Your task to perform on an android device: Empty the shopping cart on newegg. Search for "macbook pro" on newegg, select the first entry, and add it to the cart. Image 0: 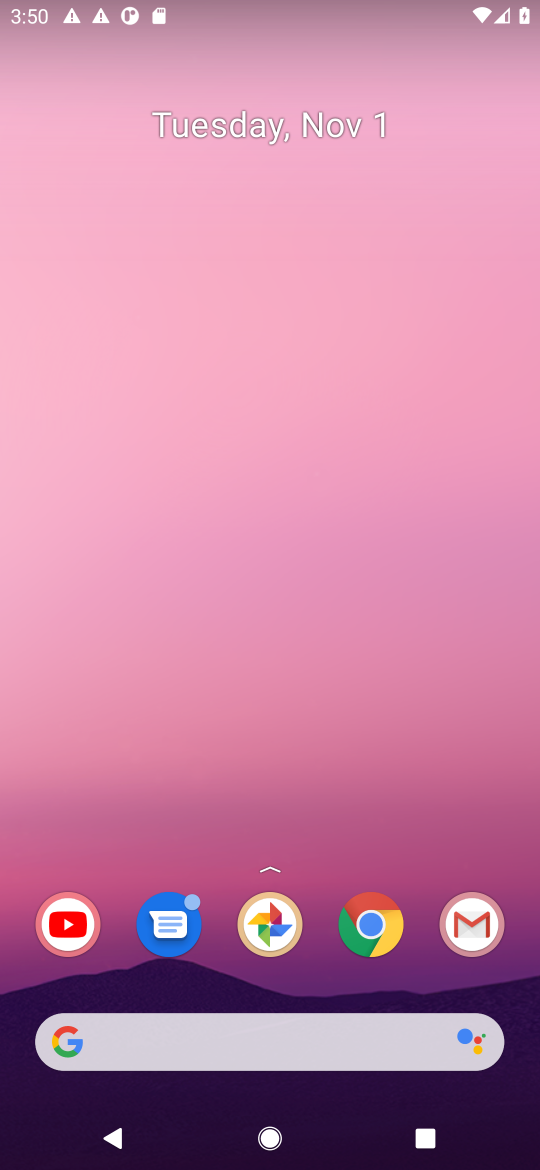
Step 0: drag from (136, 877) to (111, 70)
Your task to perform on an android device: Empty the shopping cart on newegg. Search for "macbook pro" on newegg, select the first entry, and add it to the cart. Image 1: 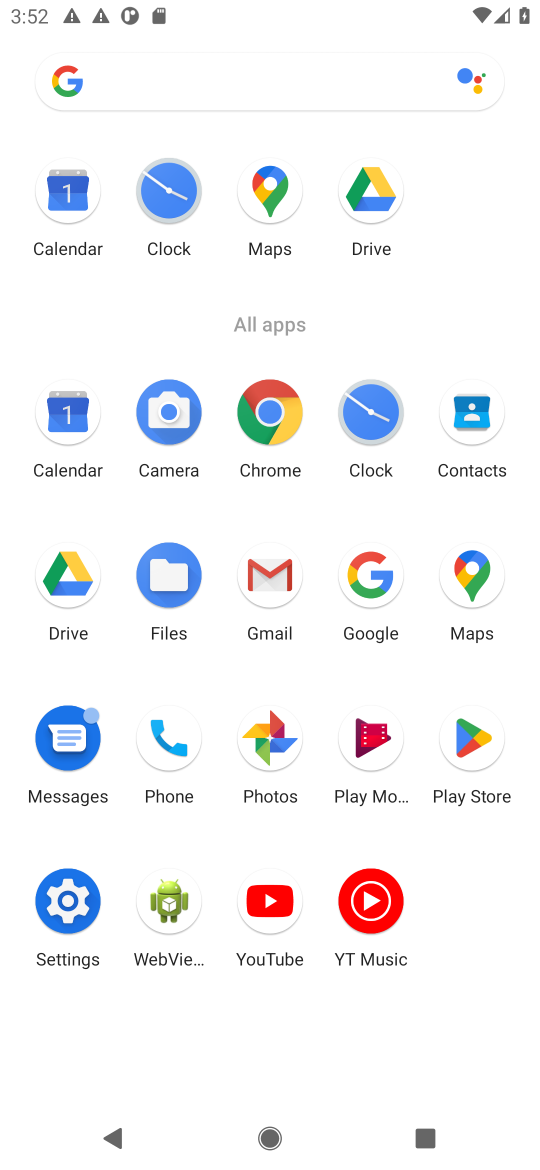
Step 1: click (267, 445)
Your task to perform on an android device: Empty the shopping cart on newegg. Search for "macbook pro" on newegg, select the first entry, and add it to the cart. Image 2: 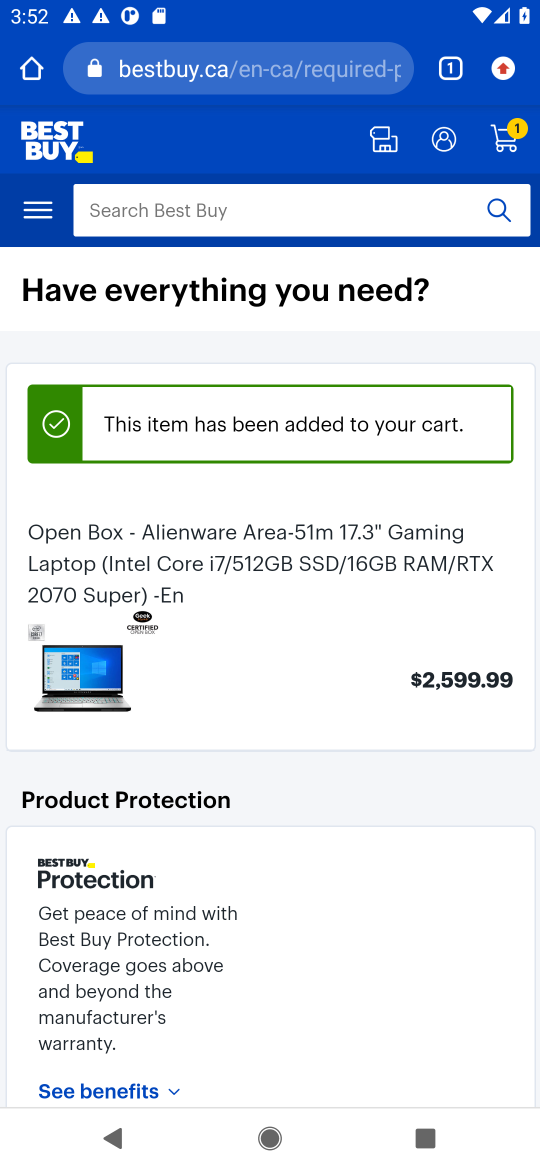
Step 2: click (149, 42)
Your task to perform on an android device: Empty the shopping cart on newegg. Search for "macbook pro" on newegg, select the first entry, and add it to the cart. Image 3: 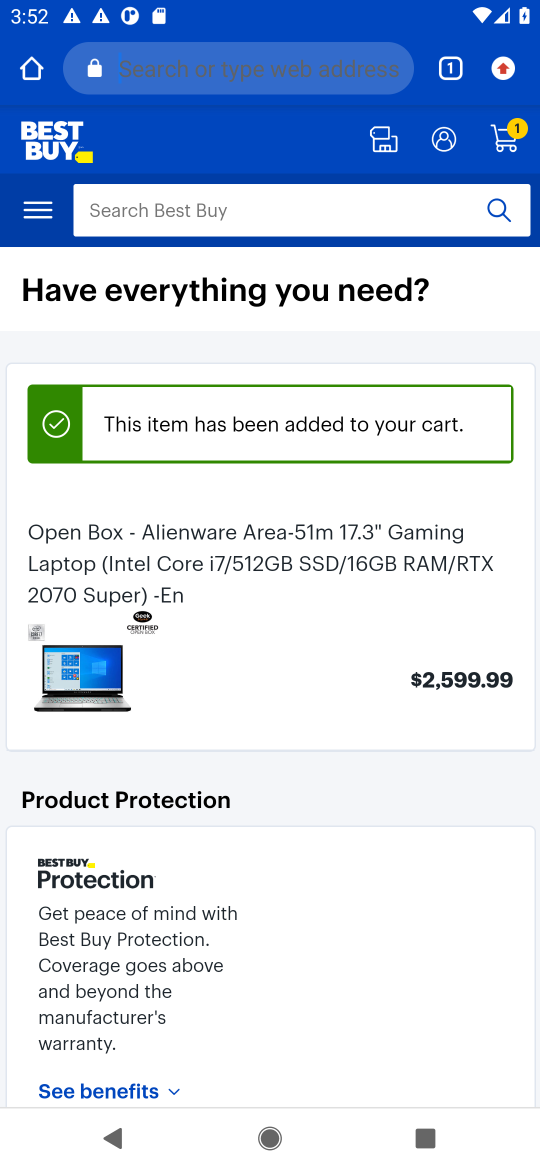
Step 3: click (169, 68)
Your task to perform on an android device: Empty the shopping cart on newegg. Search for "macbook pro" on newegg, select the first entry, and add it to the cart. Image 4: 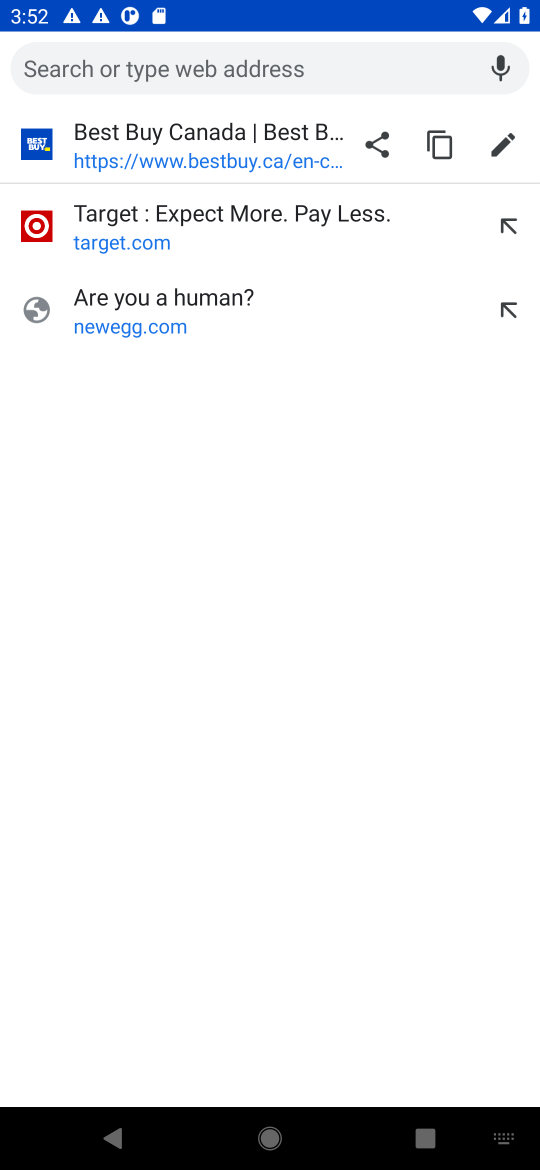
Step 4: type "newegg"
Your task to perform on an android device: Empty the shopping cart on newegg. Search for "macbook pro" on newegg, select the first entry, and add it to the cart. Image 5: 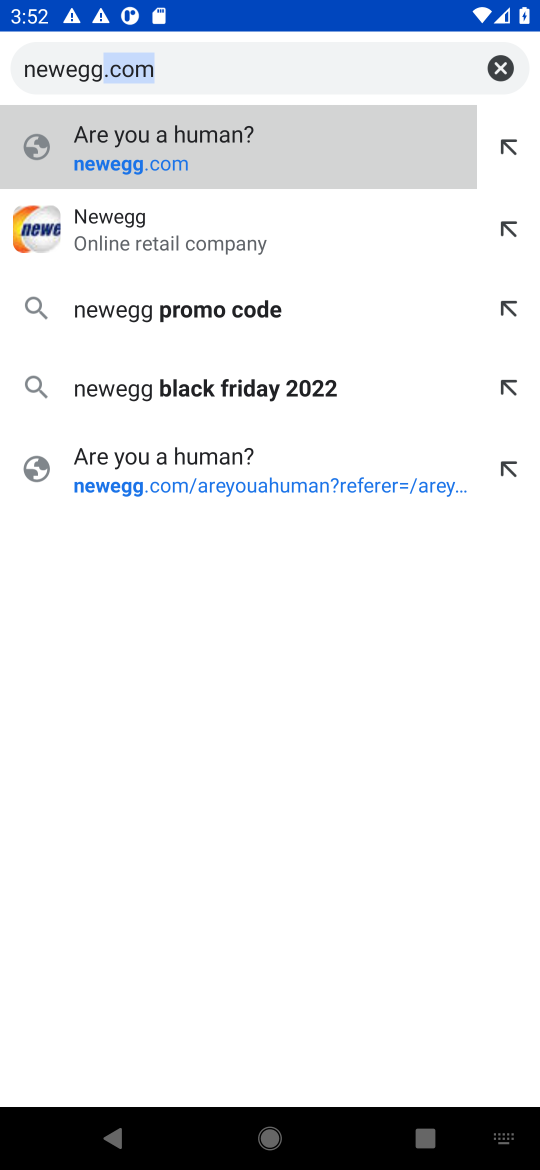
Step 5: press enter
Your task to perform on an android device: Empty the shopping cart on newegg. Search for "macbook pro" on newegg, select the first entry, and add it to the cart. Image 6: 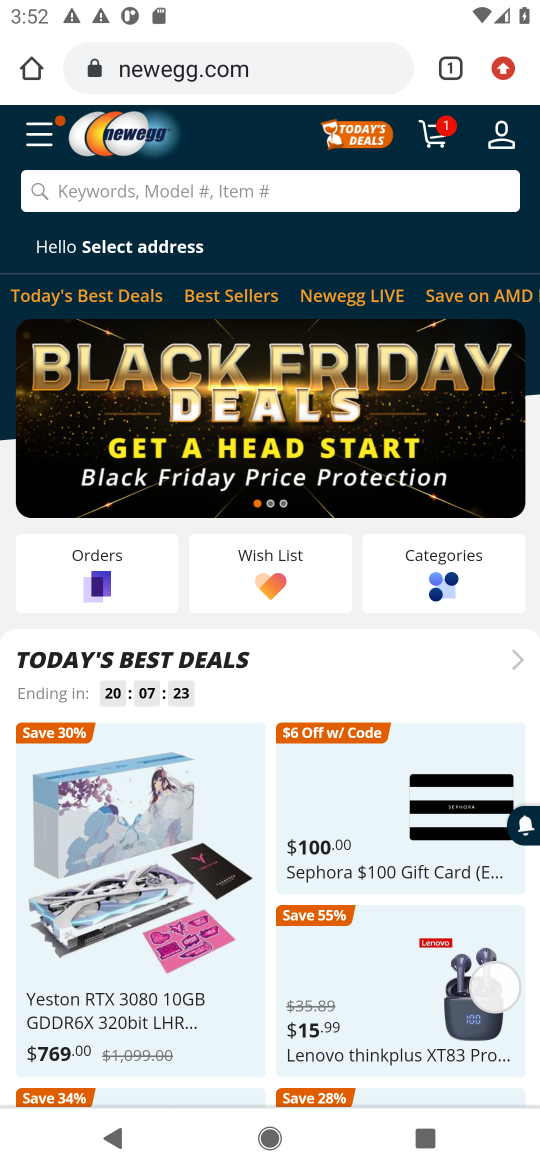
Step 6: click (76, 207)
Your task to perform on an android device: Empty the shopping cart on newegg. Search for "macbook pro" on newegg, select the first entry, and add it to the cart. Image 7: 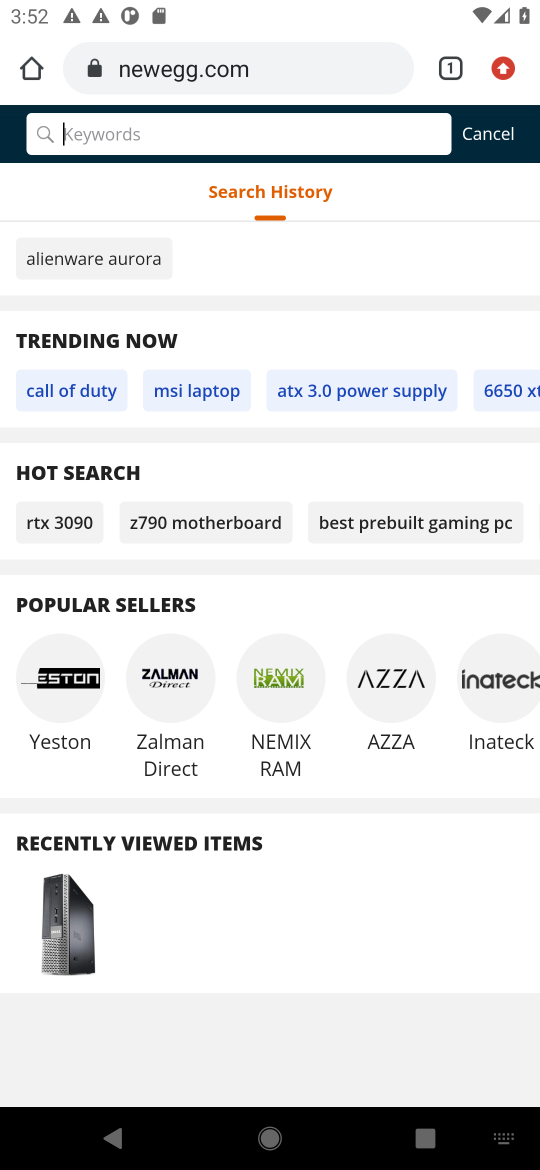
Step 7: press back button
Your task to perform on an android device: Empty the shopping cart on newegg. Search for "macbook pro" on newegg, select the first entry, and add it to the cart. Image 8: 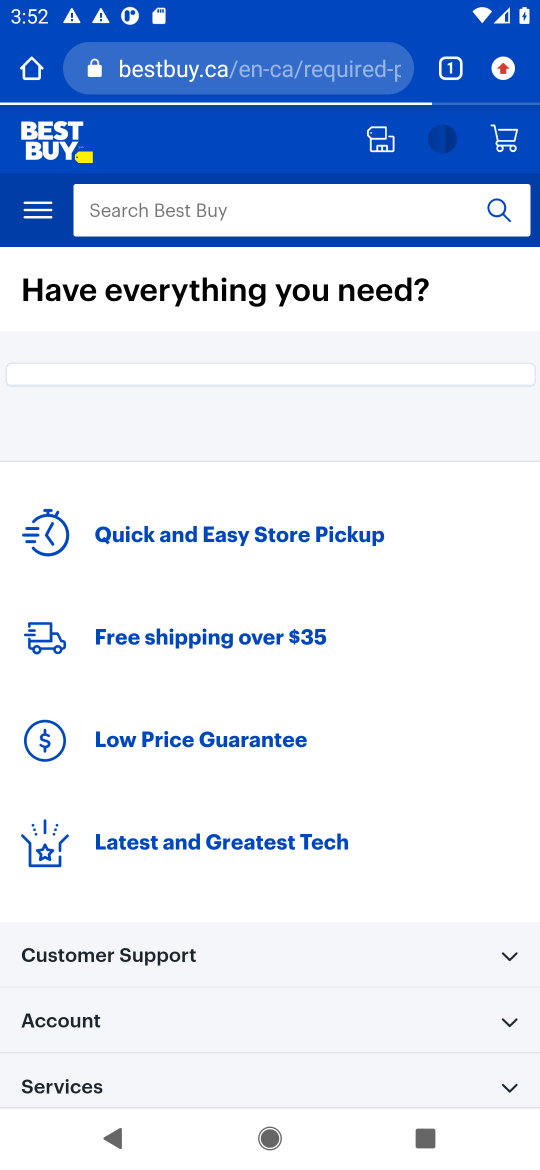
Step 8: click (235, 63)
Your task to perform on an android device: Empty the shopping cart on newegg. Search for "macbook pro" on newegg, select the first entry, and add it to the cart. Image 9: 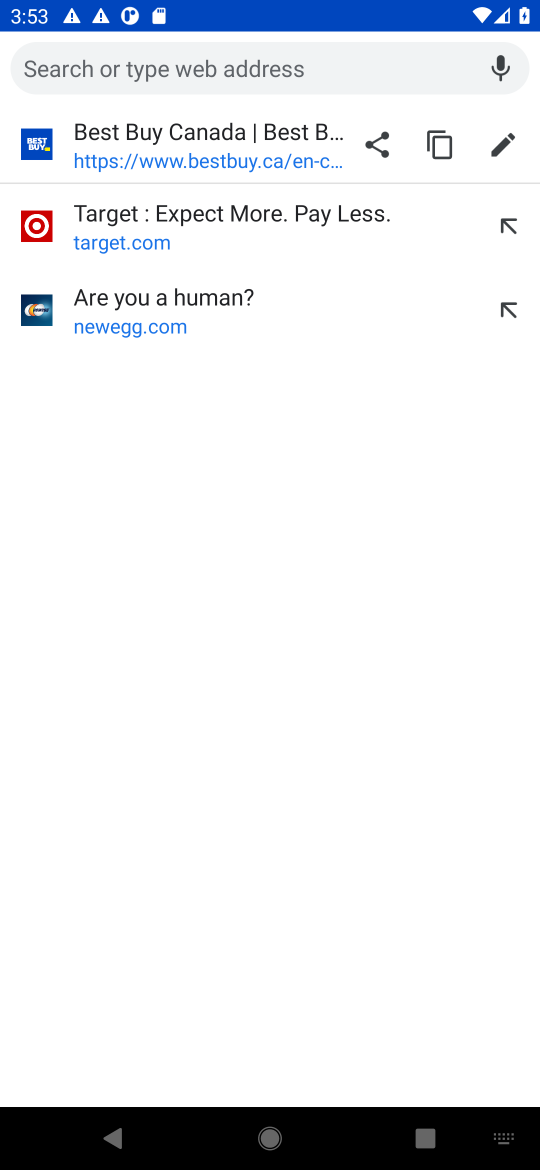
Step 9: type "newegg"
Your task to perform on an android device: Empty the shopping cart on newegg. Search for "macbook pro" on newegg, select the first entry, and add it to the cart. Image 10: 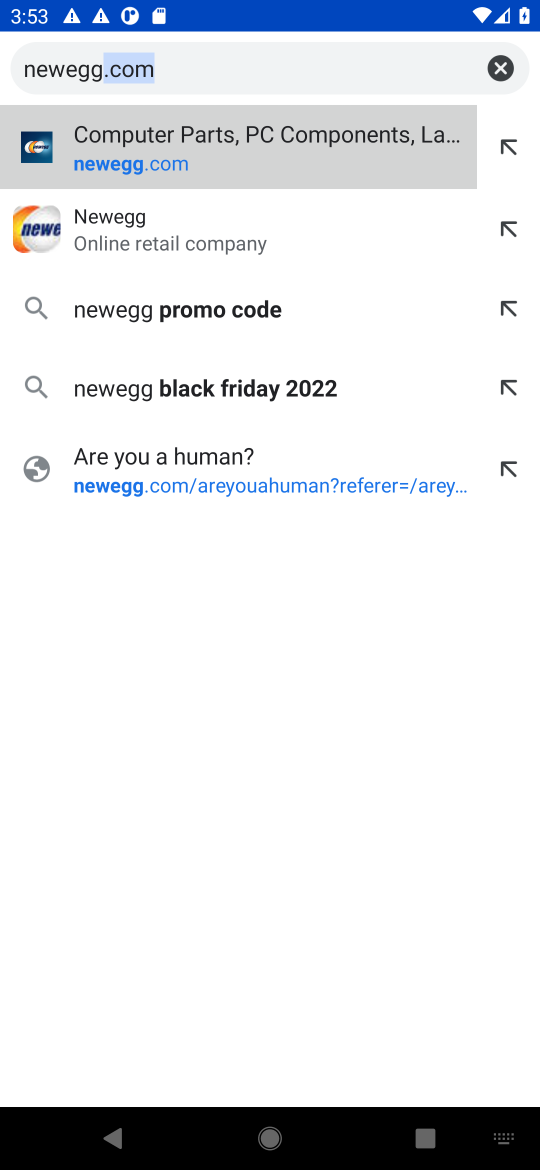
Step 10: press enter
Your task to perform on an android device: Empty the shopping cart on newegg. Search for "macbook pro" on newegg, select the first entry, and add it to the cart. Image 11: 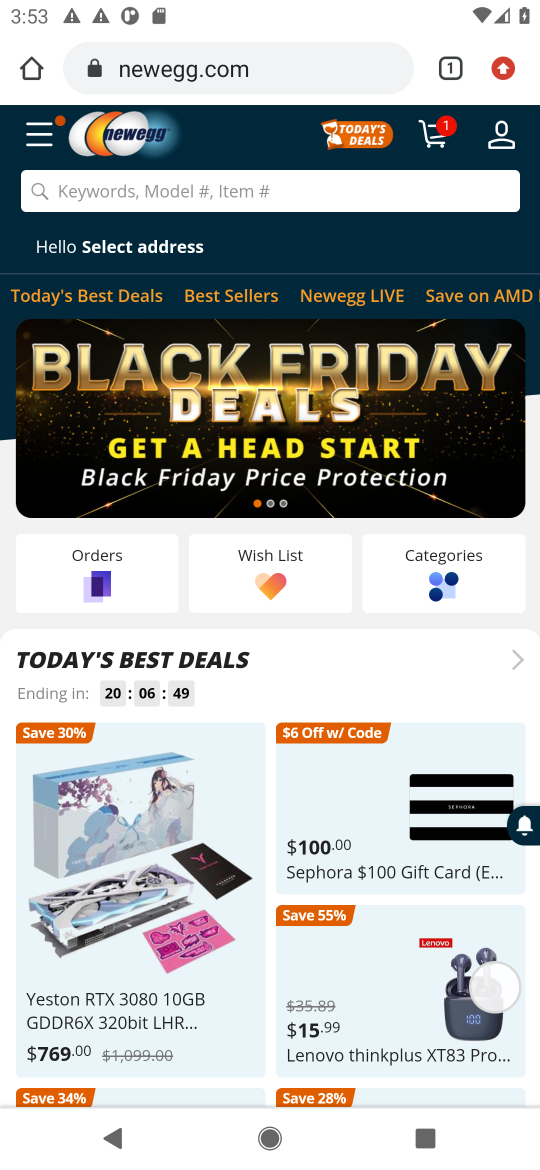
Step 11: click (433, 128)
Your task to perform on an android device: Empty the shopping cart on newegg. Search for "macbook pro" on newegg, select the first entry, and add it to the cart. Image 12: 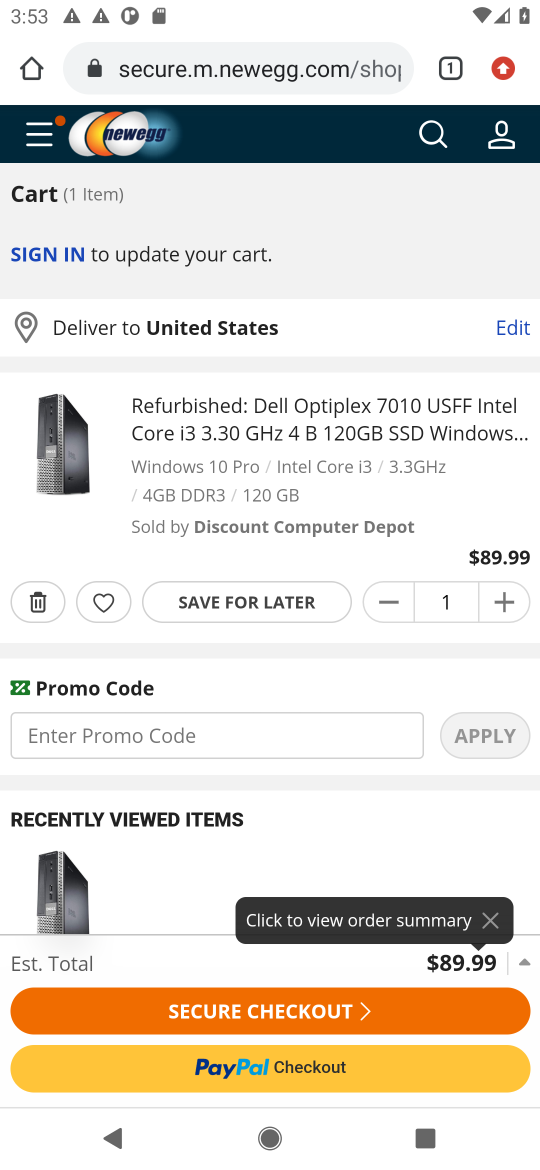
Step 12: click (388, 594)
Your task to perform on an android device: Empty the shopping cart on newegg. Search for "macbook pro" on newegg, select the first entry, and add it to the cart. Image 13: 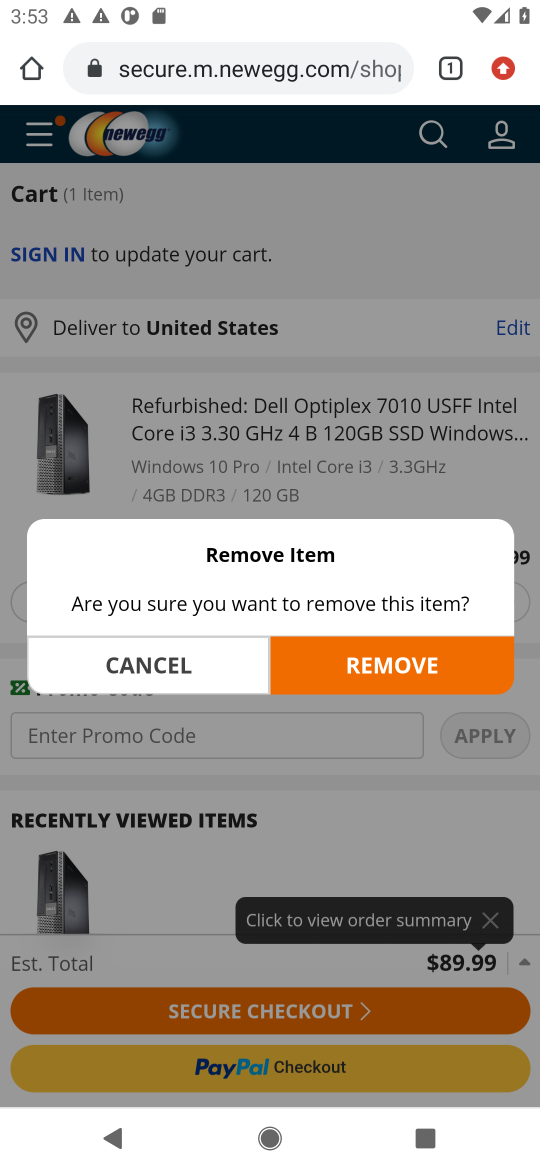
Step 13: click (435, 661)
Your task to perform on an android device: Empty the shopping cart on newegg. Search for "macbook pro" on newegg, select the first entry, and add it to the cart. Image 14: 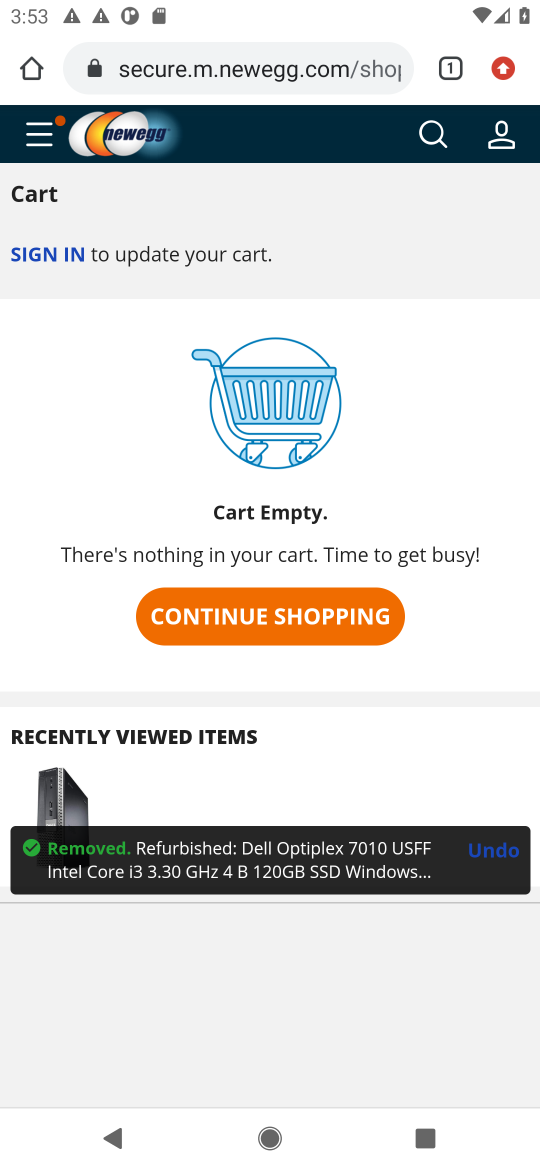
Step 14: click (427, 139)
Your task to perform on an android device: Empty the shopping cart on newegg. Search for "macbook pro" on newegg, select the first entry, and add it to the cart. Image 15: 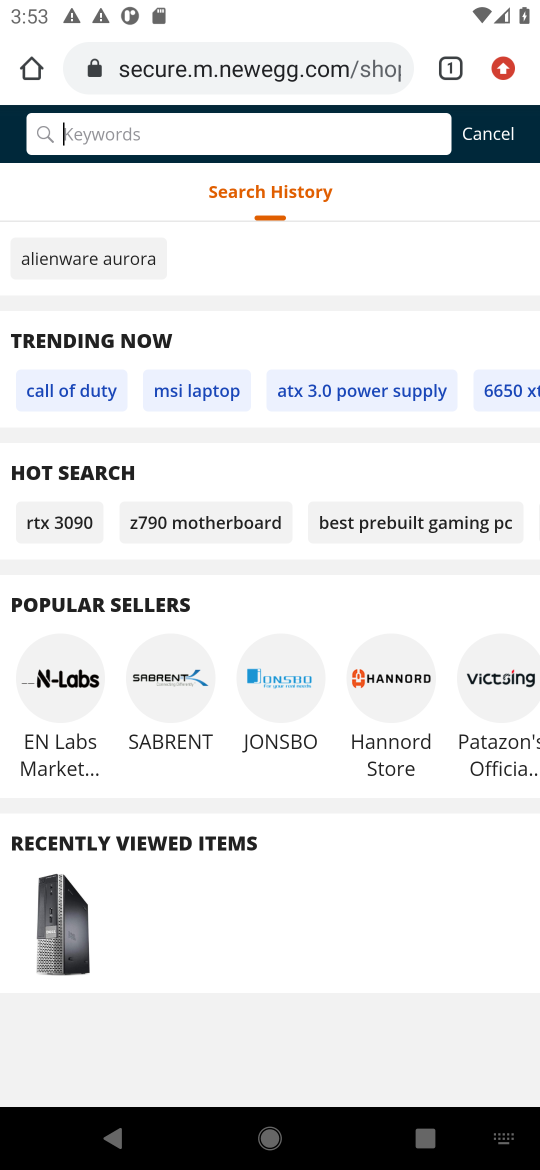
Step 15: type "macbook pro"
Your task to perform on an android device: Empty the shopping cart on newegg. Search for "macbook pro" on newegg, select the first entry, and add it to the cart. Image 16: 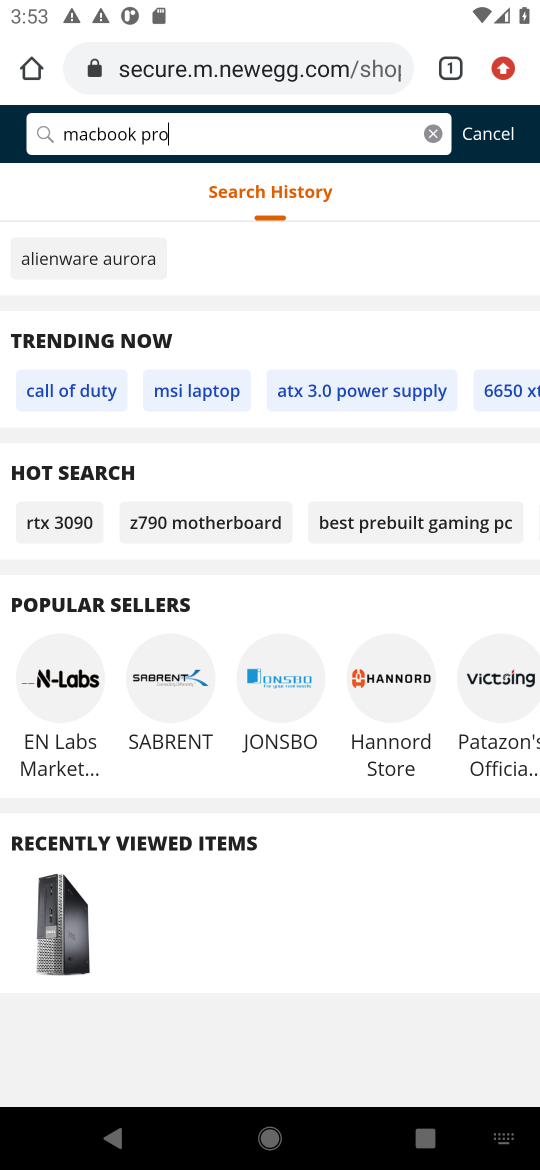
Step 16: press enter
Your task to perform on an android device: Empty the shopping cart on newegg. Search for "macbook pro" on newegg, select the first entry, and add it to the cart. Image 17: 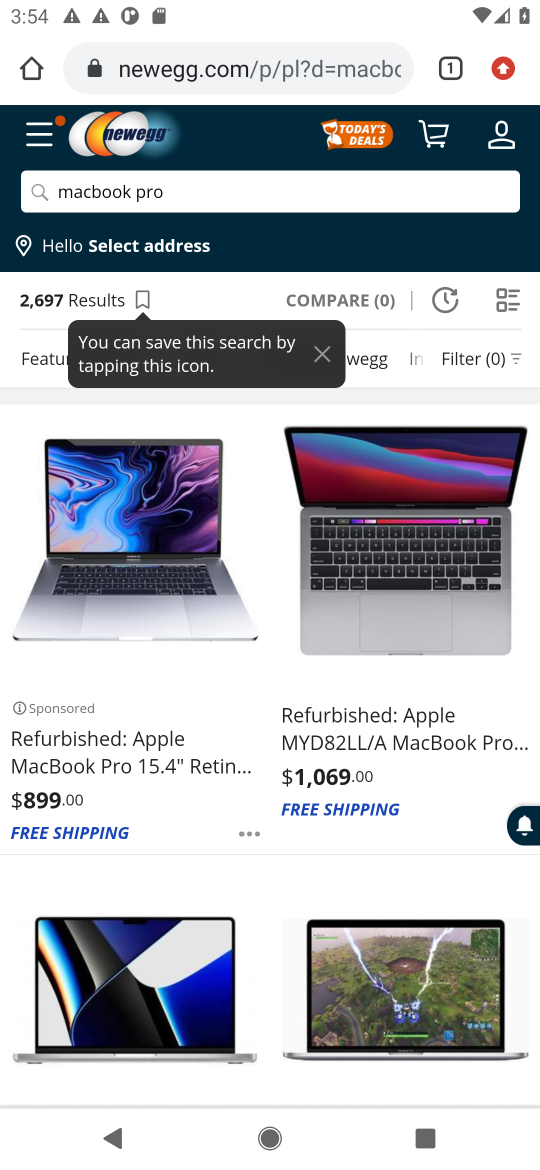
Step 17: click (101, 490)
Your task to perform on an android device: Empty the shopping cart on newegg. Search for "macbook pro" on newegg, select the first entry, and add it to the cart. Image 18: 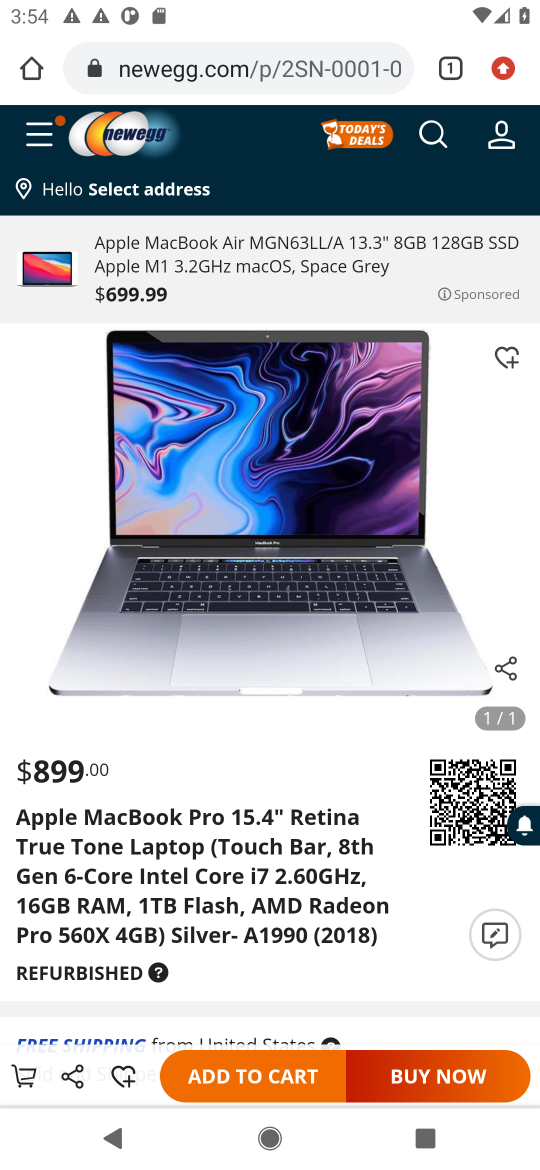
Step 18: click (222, 1077)
Your task to perform on an android device: Empty the shopping cart on newegg. Search for "macbook pro" on newegg, select the first entry, and add it to the cart. Image 19: 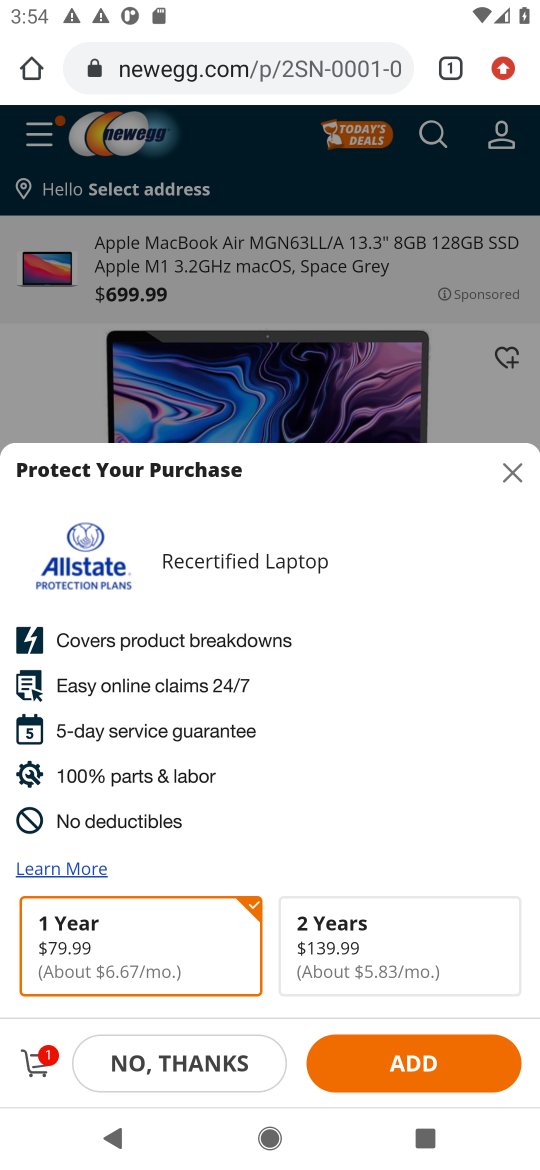
Step 19: click (422, 1057)
Your task to perform on an android device: Empty the shopping cart on newegg. Search for "macbook pro" on newegg, select the first entry, and add it to the cart. Image 20: 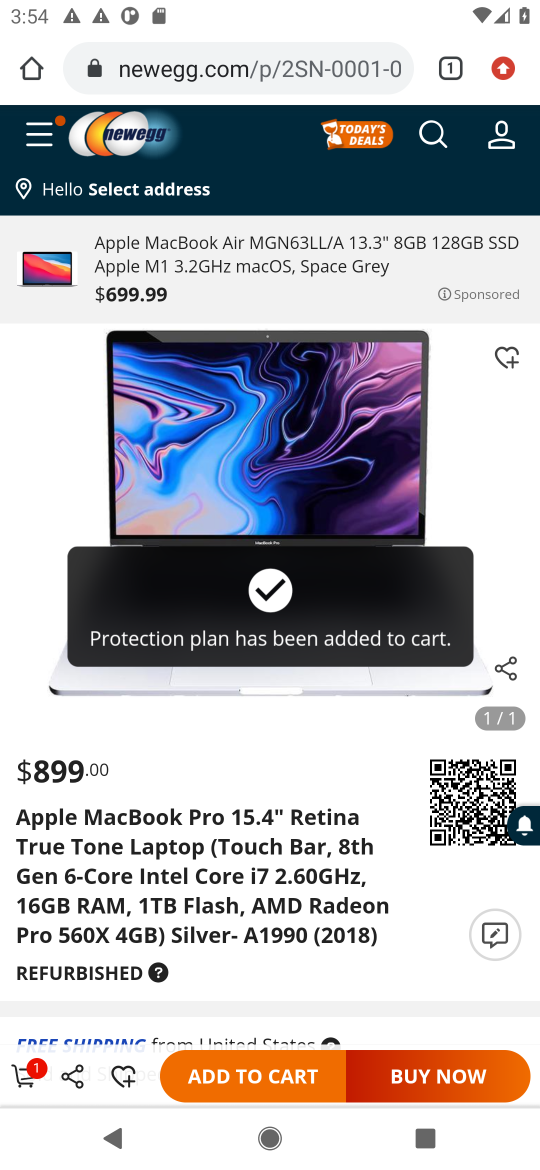
Step 20: task complete